Your task to perform on an android device: change keyboard looks Image 0: 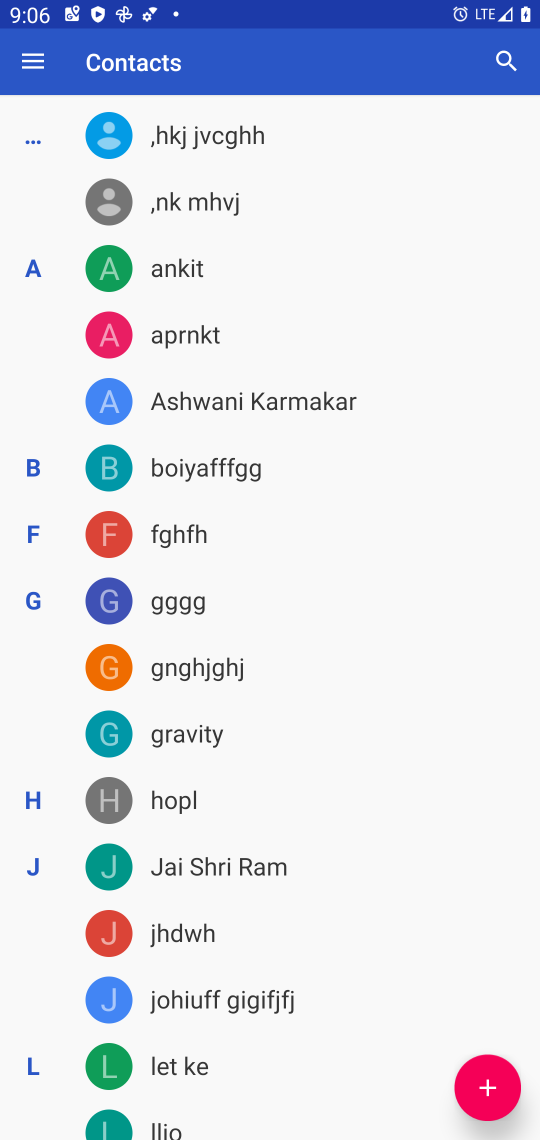
Step 0: press home button
Your task to perform on an android device: change keyboard looks Image 1: 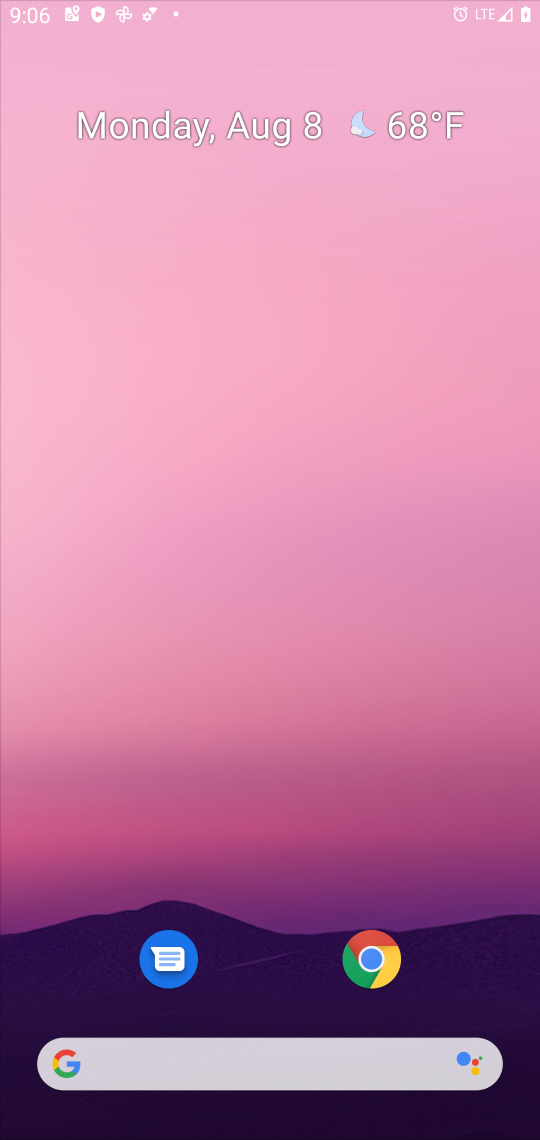
Step 1: drag from (479, 938) to (264, 76)
Your task to perform on an android device: change keyboard looks Image 2: 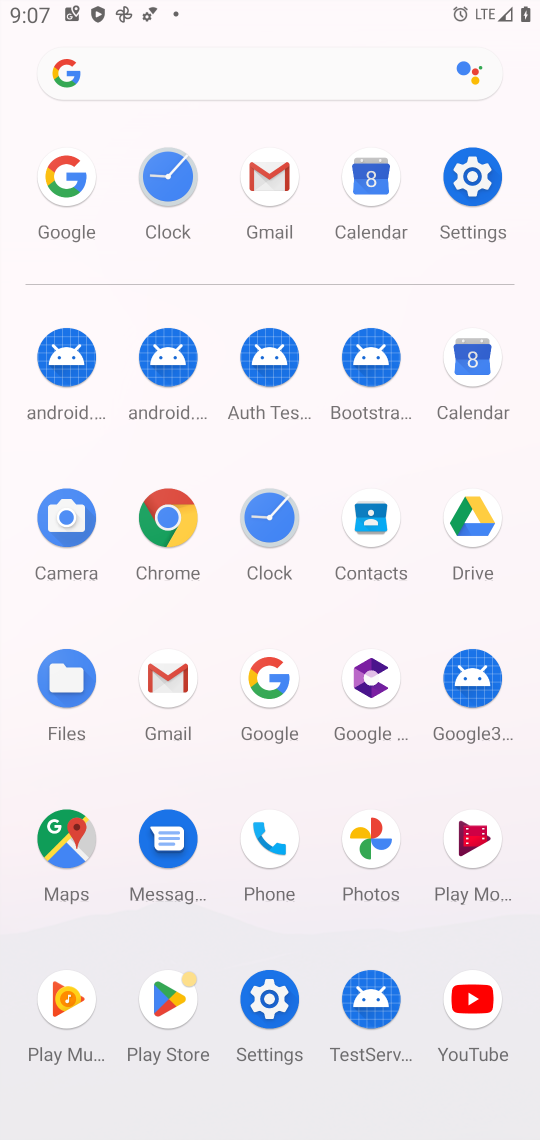
Step 2: click (263, 1001)
Your task to perform on an android device: change keyboard looks Image 3: 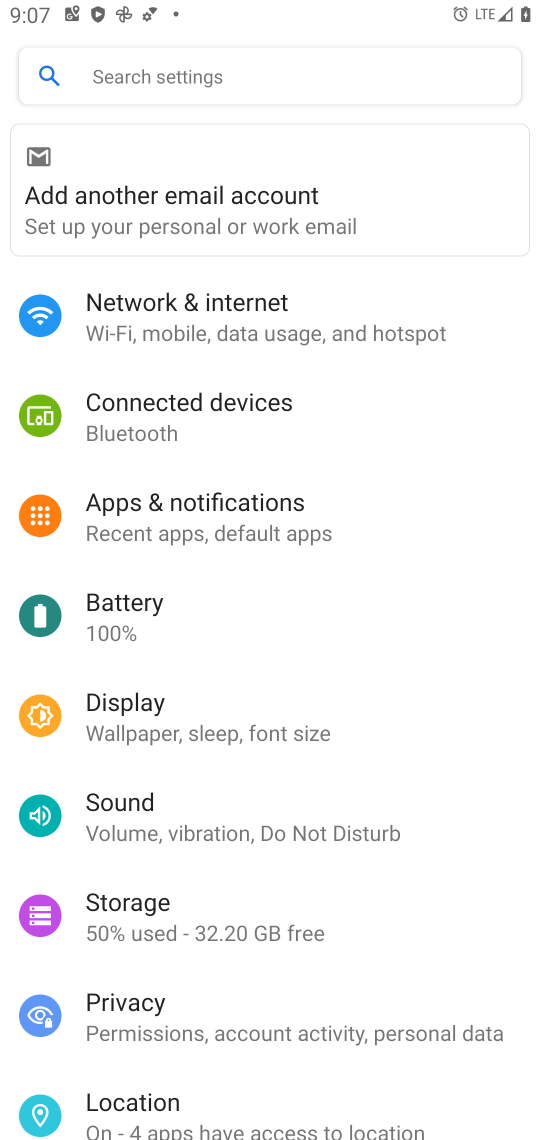
Step 3: drag from (140, 1065) to (255, 26)
Your task to perform on an android device: change keyboard looks Image 4: 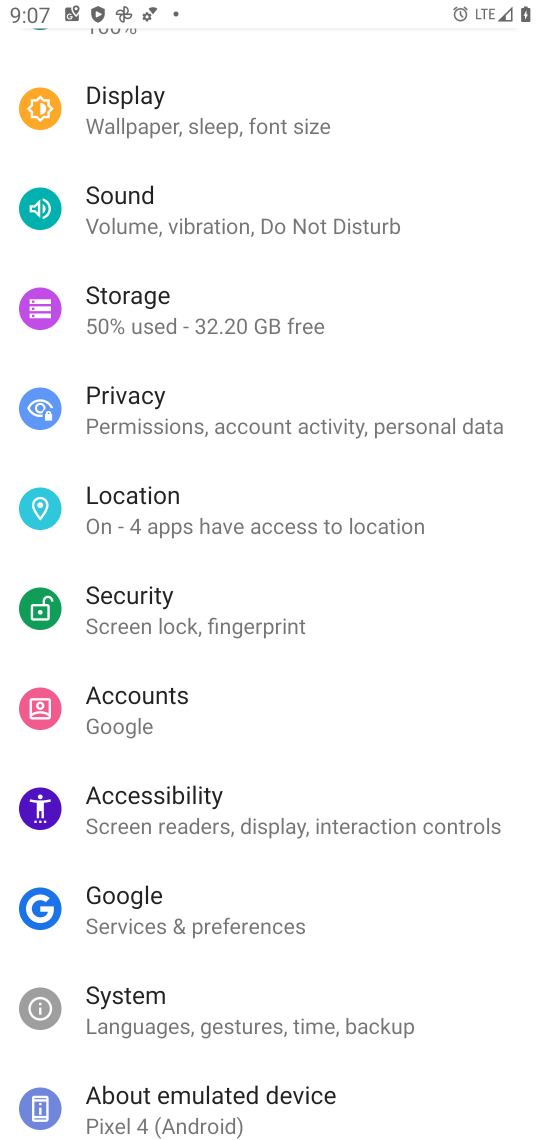
Step 4: drag from (143, 1052) to (173, 76)
Your task to perform on an android device: change keyboard looks Image 5: 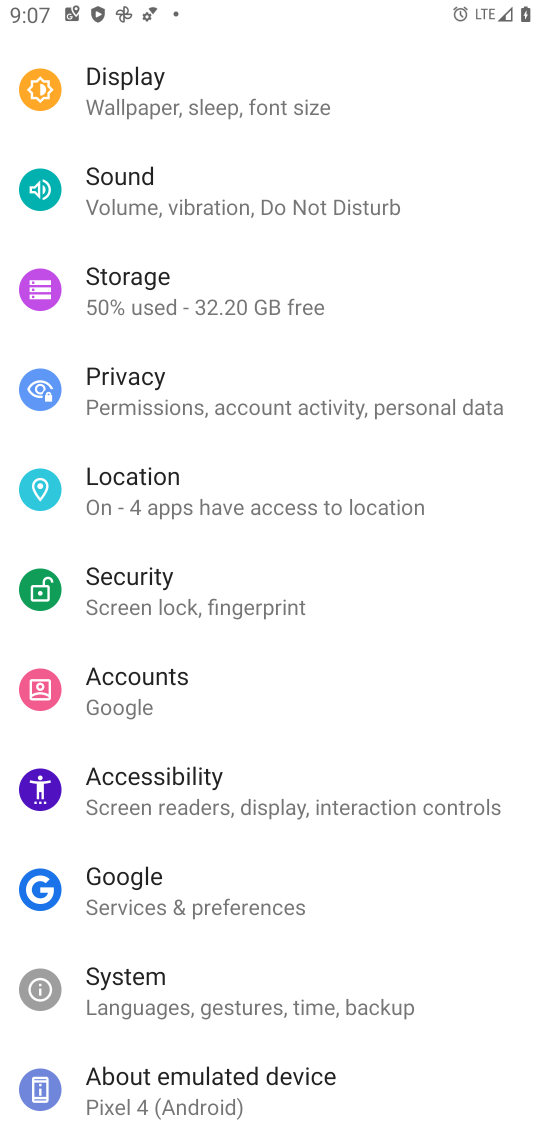
Step 5: click (127, 1020)
Your task to perform on an android device: change keyboard looks Image 6: 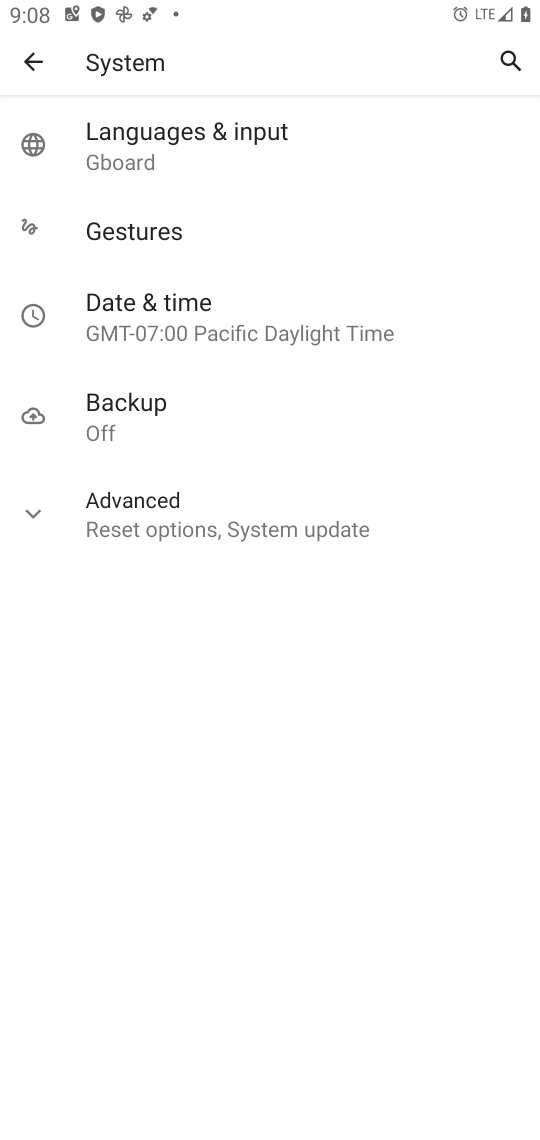
Step 6: click (175, 141)
Your task to perform on an android device: change keyboard looks Image 7: 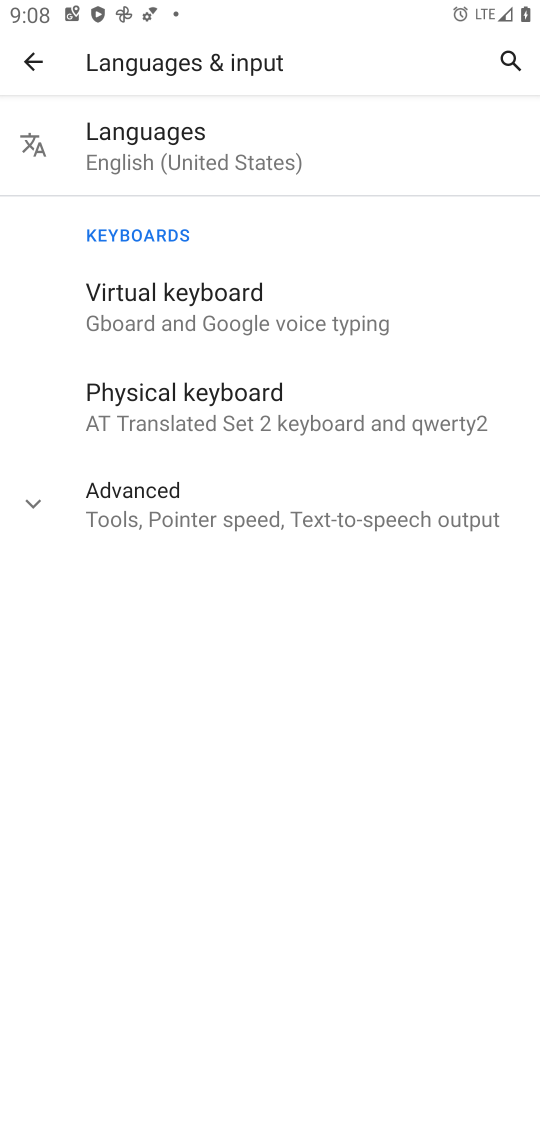
Step 7: click (119, 304)
Your task to perform on an android device: change keyboard looks Image 8: 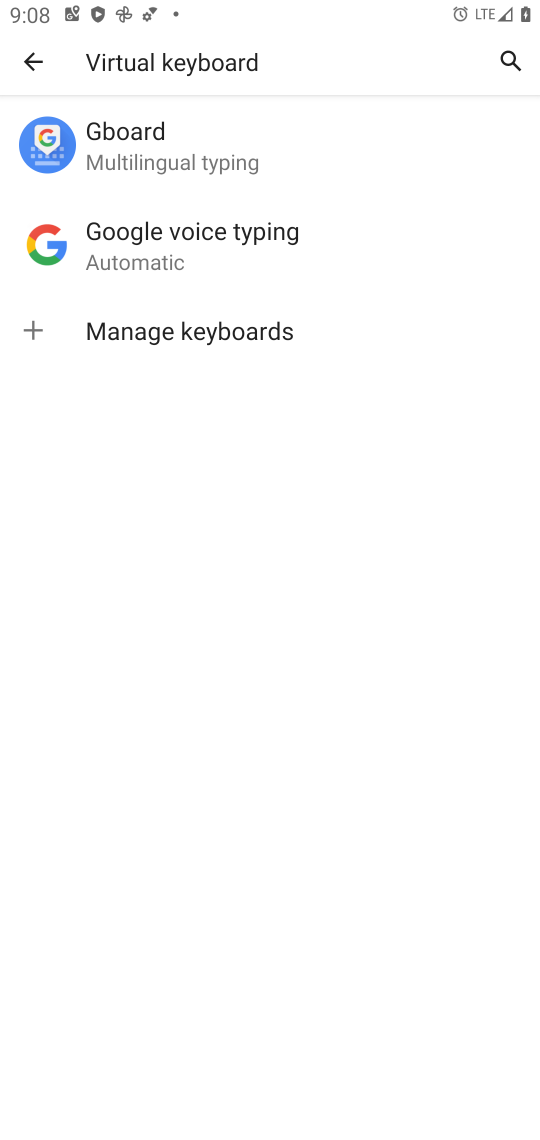
Step 8: click (180, 165)
Your task to perform on an android device: change keyboard looks Image 9: 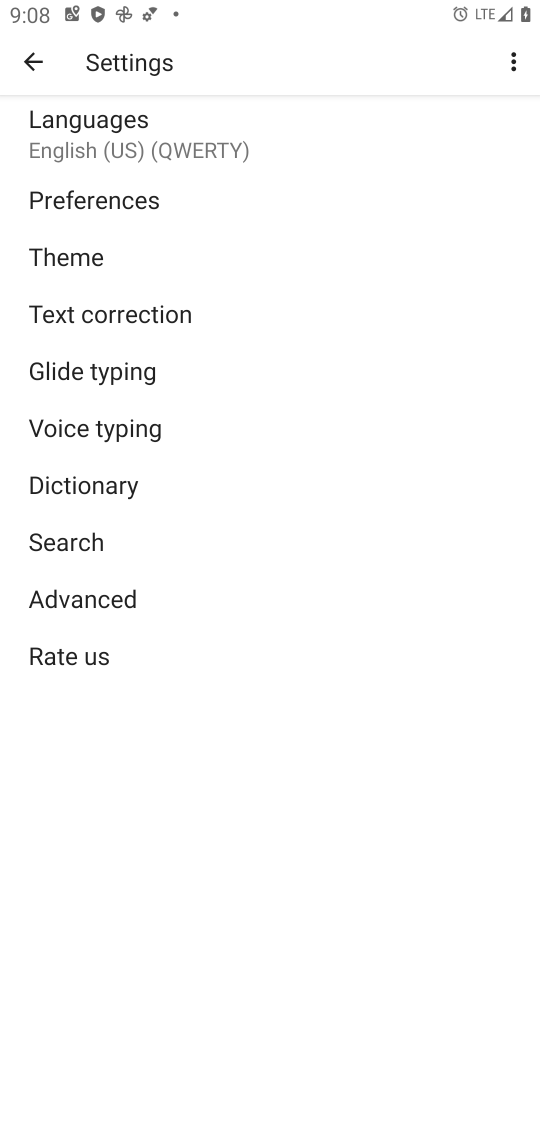
Step 9: click (120, 256)
Your task to perform on an android device: change keyboard looks Image 10: 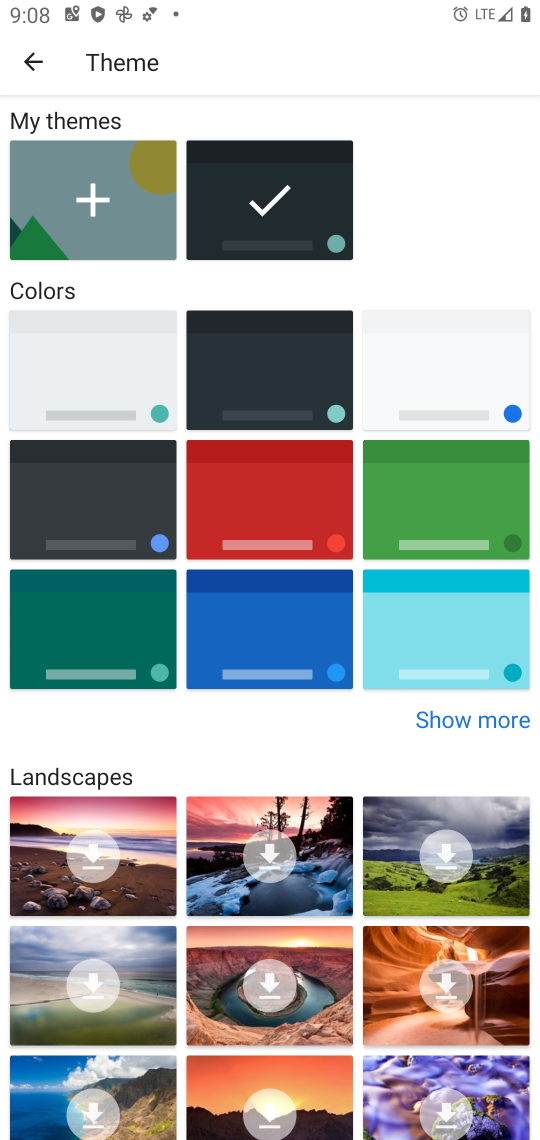
Step 10: click (435, 348)
Your task to perform on an android device: change keyboard looks Image 11: 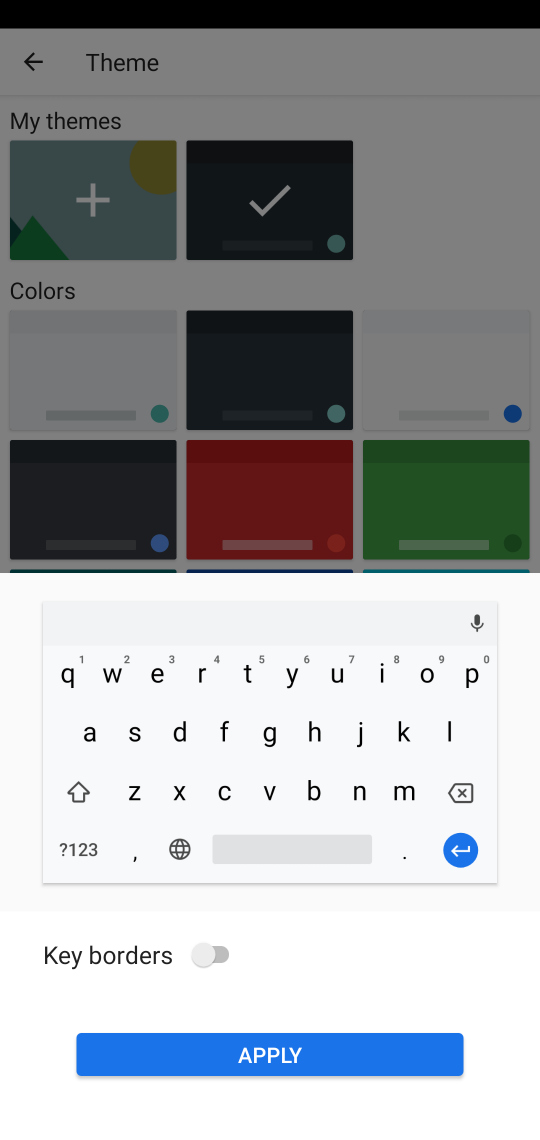
Step 11: click (251, 1050)
Your task to perform on an android device: change keyboard looks Image 12: 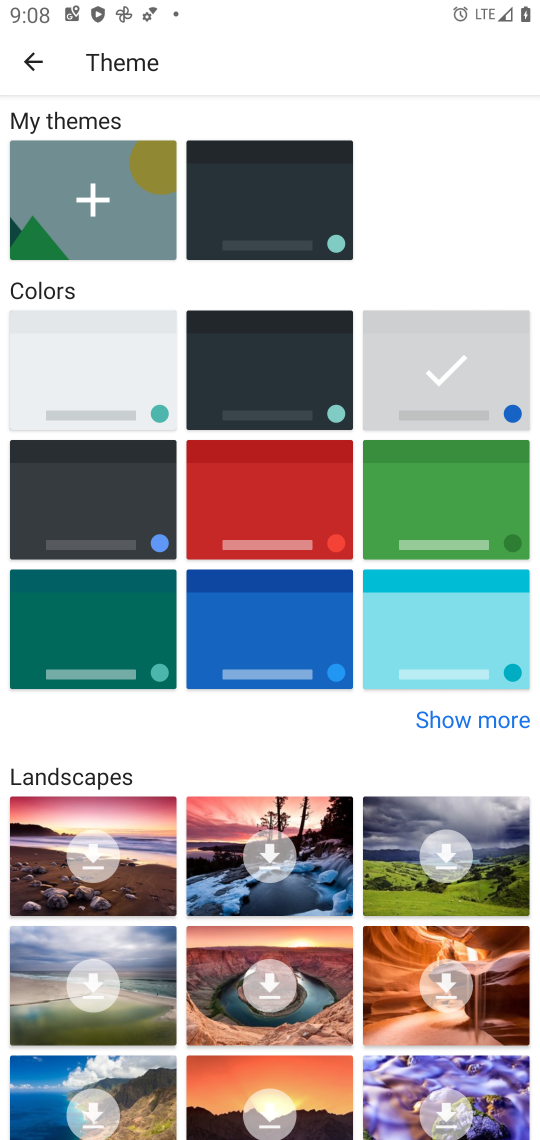
Step 12: task complete